Your task to perform on an android device: Go to Yahoo.com Image 0: 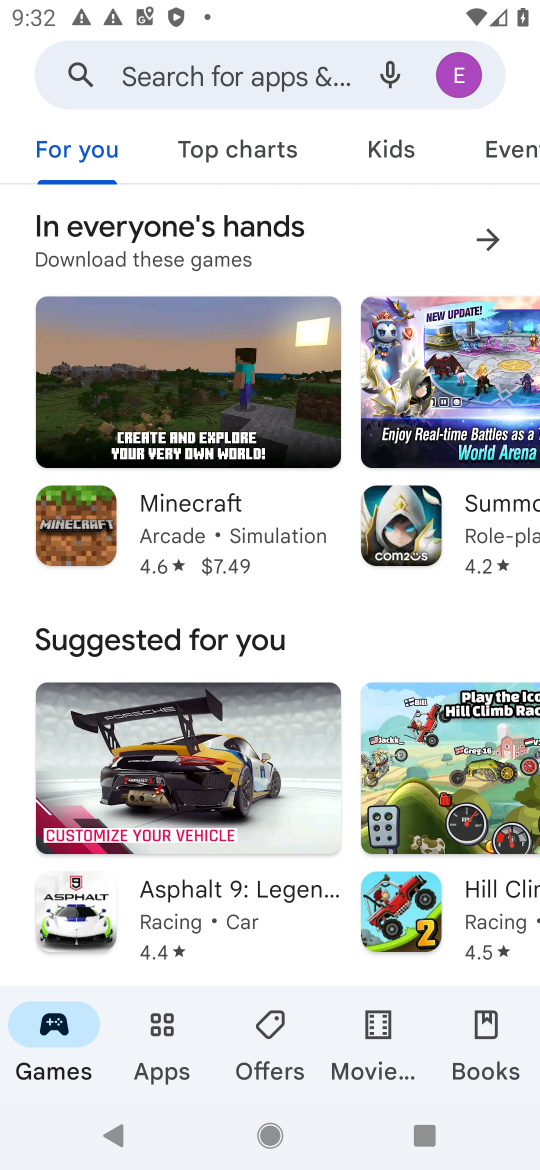
Step 0: press home button
Your task to perform on an android device: Go to Yahoo.com Image 1: 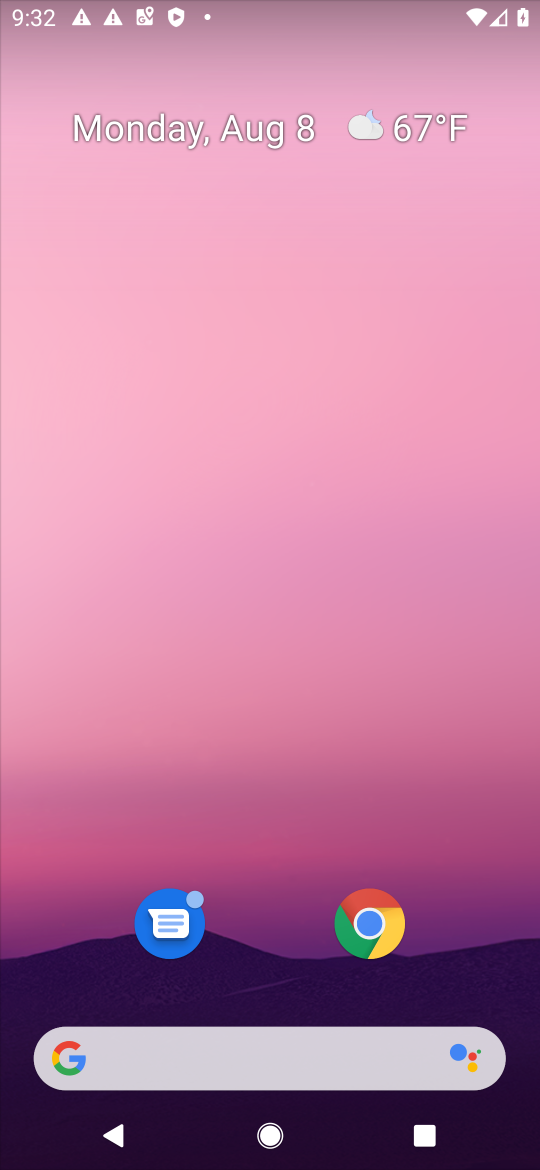
Step 1: click (148, 1055)
Your task to perform on an android device: Go to Yahoo.com Image 2: 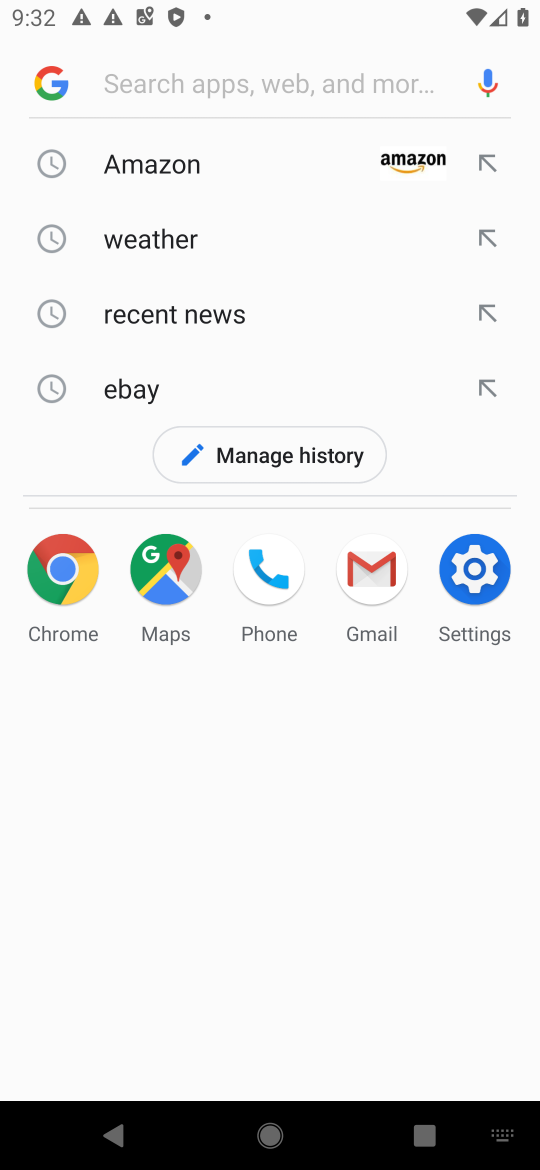
Step 2: type "Yahoo.com"
Your task to perform on an android device: Go to Yahoo.com Image 3: 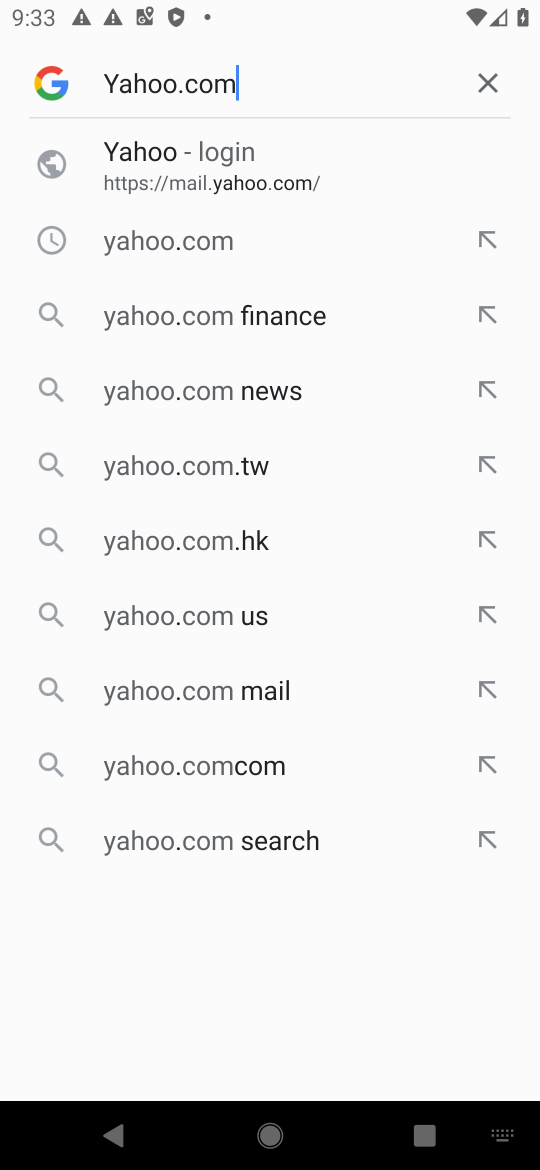
Step 3: click (155, 225)
Your task to perform on an android device: Go to Yahoo.com Image 4: 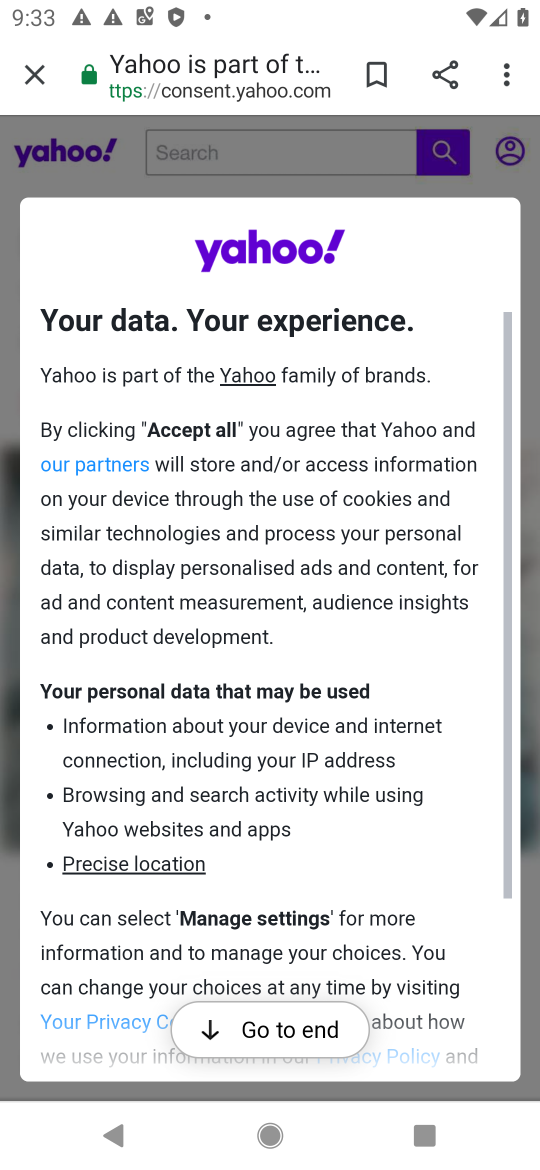
Step 4: task complete